Your task to perform on an android device: change timer sound Image 0: 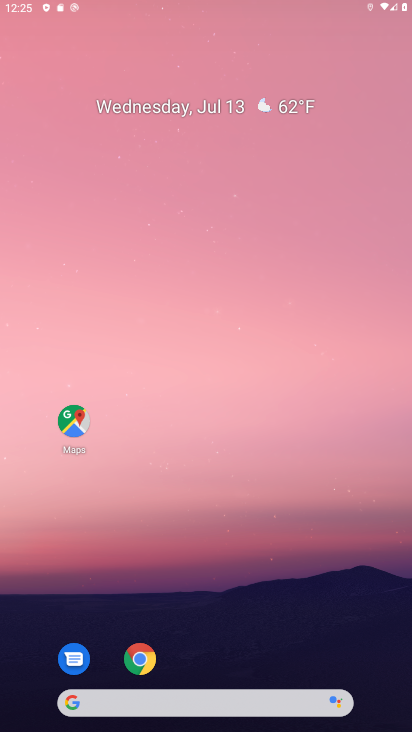
Step 0: drag from (182, 720) to (157, 251)
Your task to perform on an android device: change timer sound Image 1: 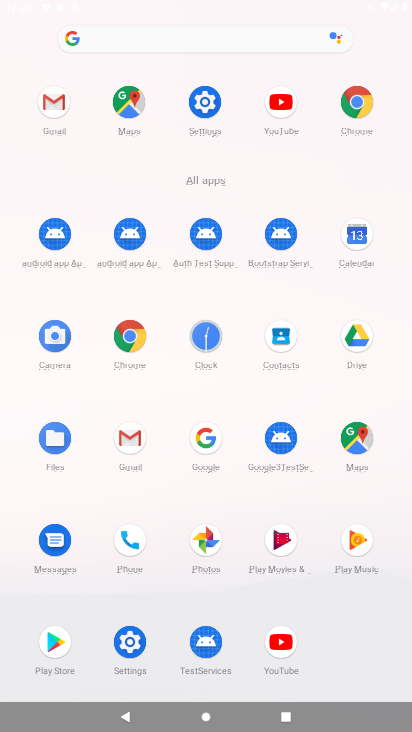
Step 1: drag from (271, 574) to (181, 132)
Your task to perform on an android device: change timer sound Image 2: 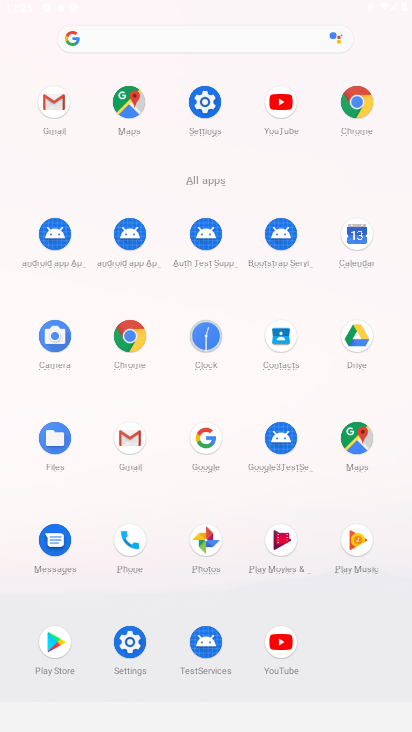
Step 2: click (138, 436)
Your task to perform on an android device: change timer sound Image 3: 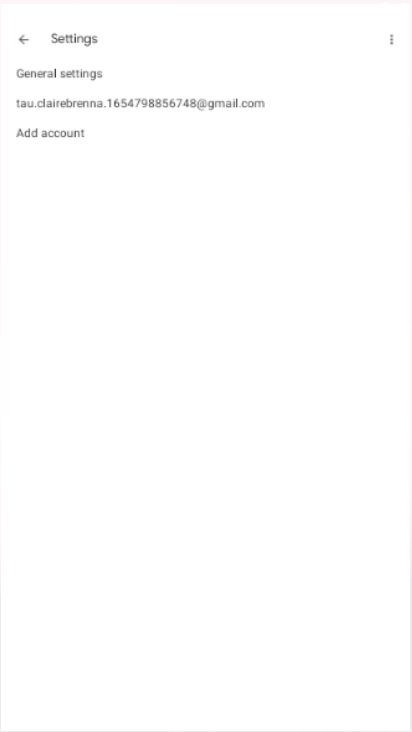
Step 3: click (134, 428)
Your task to perform on an android device: change timer sound Image 4: 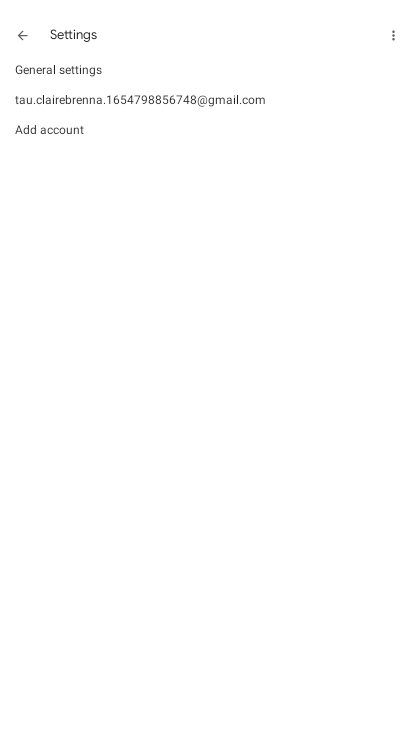
Step 4: click (11, 31)
Your task to perform on an android device: change timer sound Image 5: 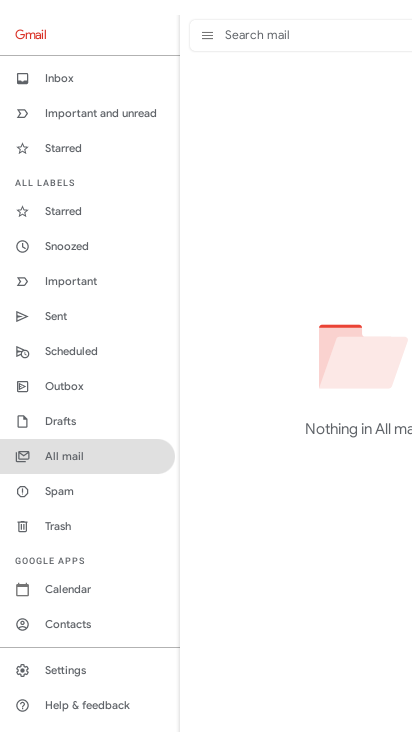
Step 5: press back button
Your task to perform on an android device: change timer sound Image 6: 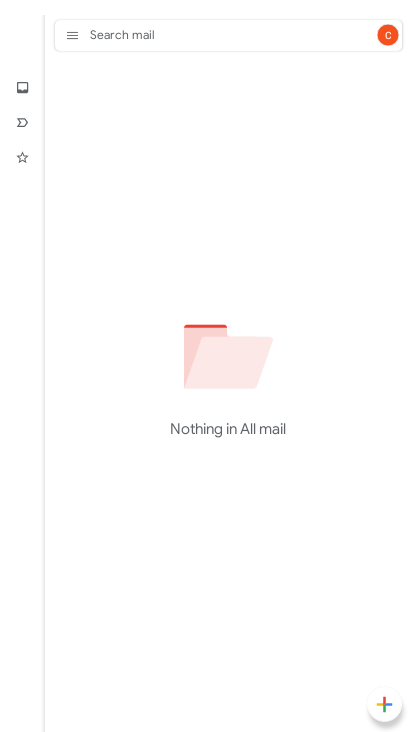
Step 6: press home button
Your task to perform on an android device: change timer sound Image 7: 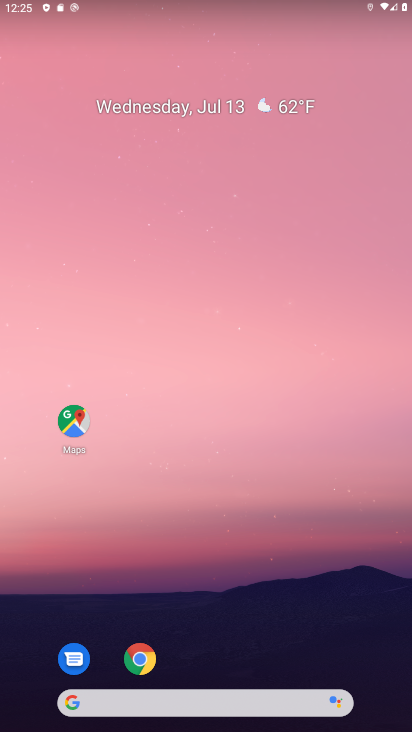
Step 7: drag from (237, 645) to (157, 129)
Your task to perform on an android device: change timer sound Image 8: 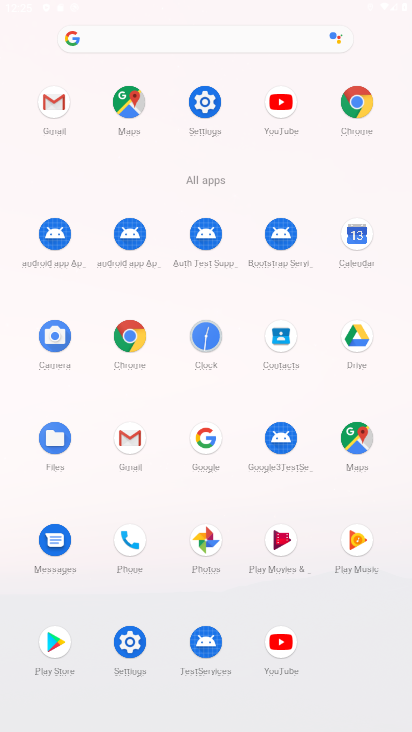
Step 8: click (206, 335)
Your task to perform on an android device: change timer sound Image 9: 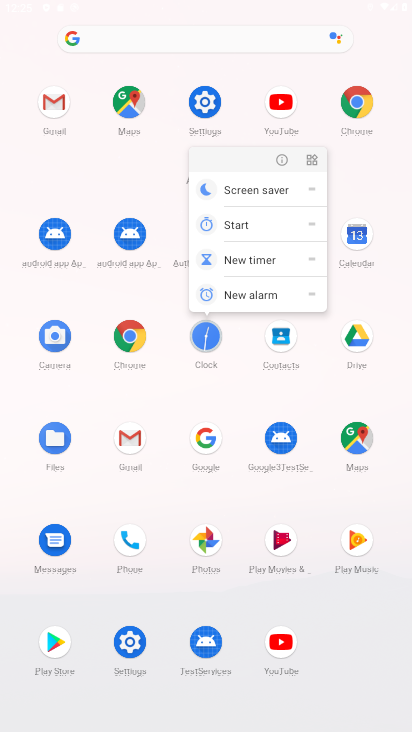
Step 9: click (210, 330)
Your task to perform on an android device: change timer sound Image 10: 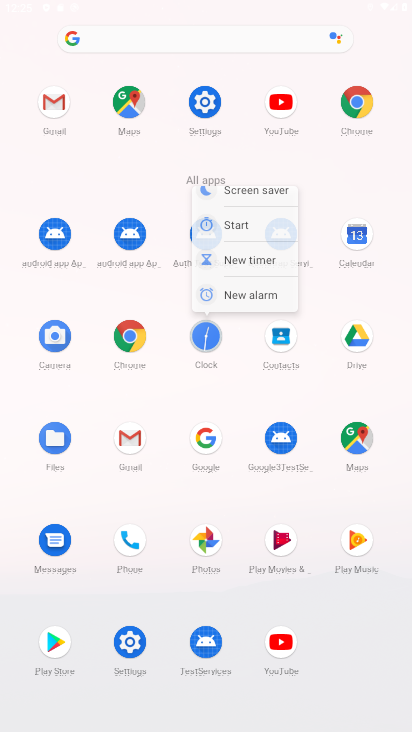
Step 10: click (210, 330)
Your task to perform on an android device: change timer sound Image 11: 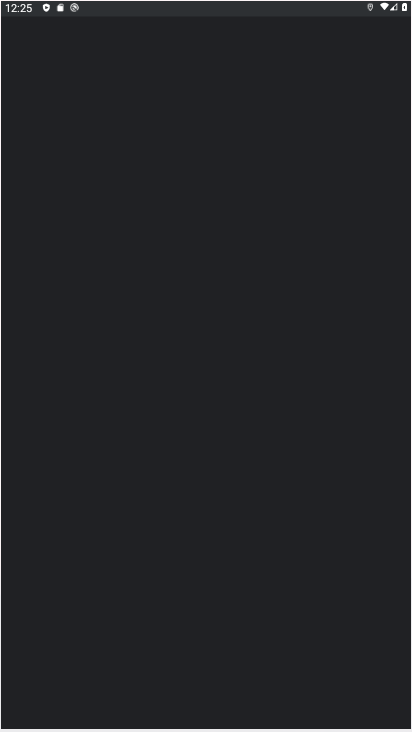
Step 11: click (210, 330)
Your task to perform on an android device: change timer sound Image 12: 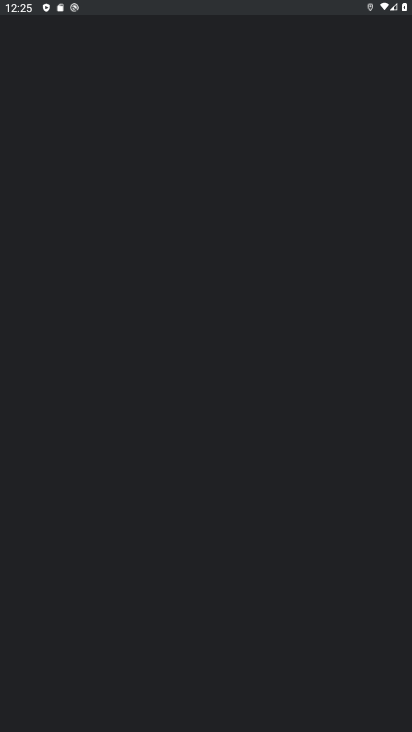
Step 12: click (210, 330)
Your task to perform on an android device: change timer sound Image 13: 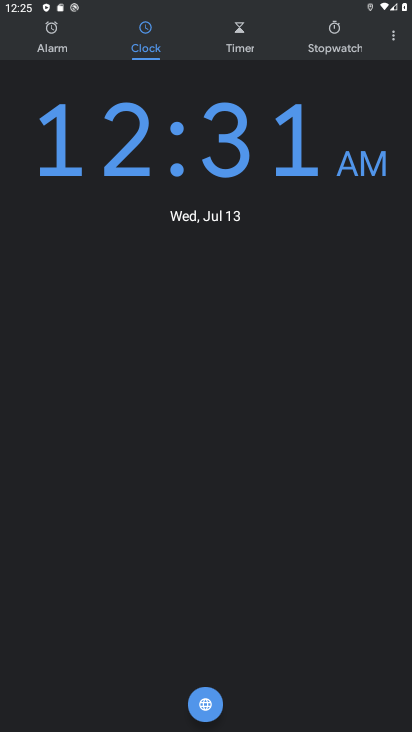
Step 13: click (389, 34)
Your task to perform on an android device: change timer sound Image 14: 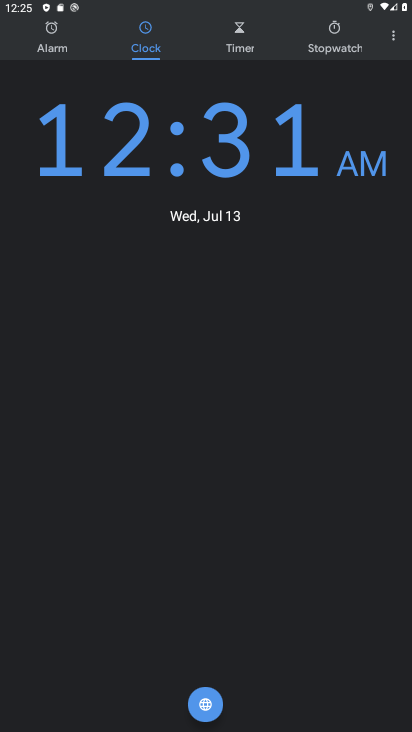
Step 14: click (393, 43)
Your task to perform on an android device: change timer sound Image 15: 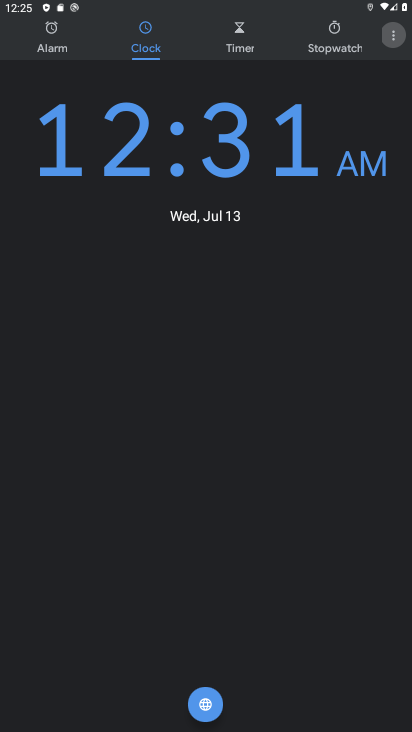
Step 15: click (394, 41)
Your task to perform on an android device: change timer sound Image 16: 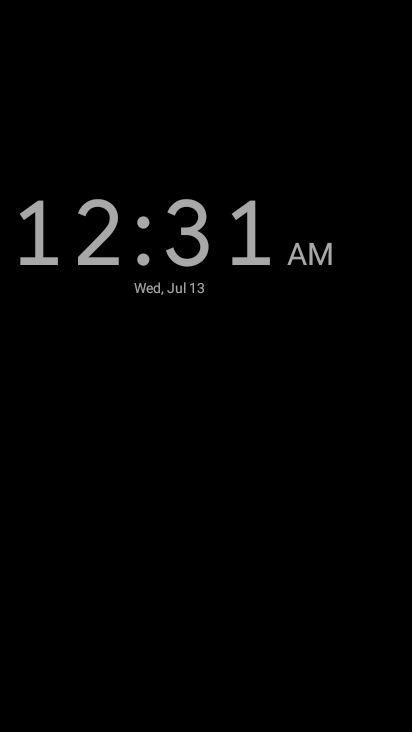
Step 16: press back button
Your task to perform on an android device: change timer sound Image 17: 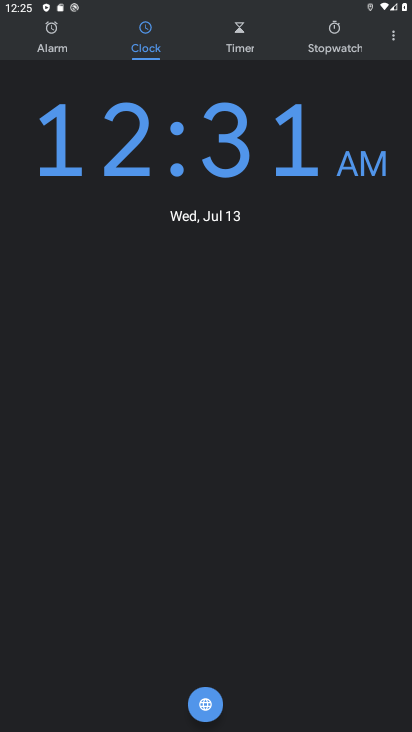
Step 17: click (391, 34)
Your task to perform on an android device: change timer sound Image 18: 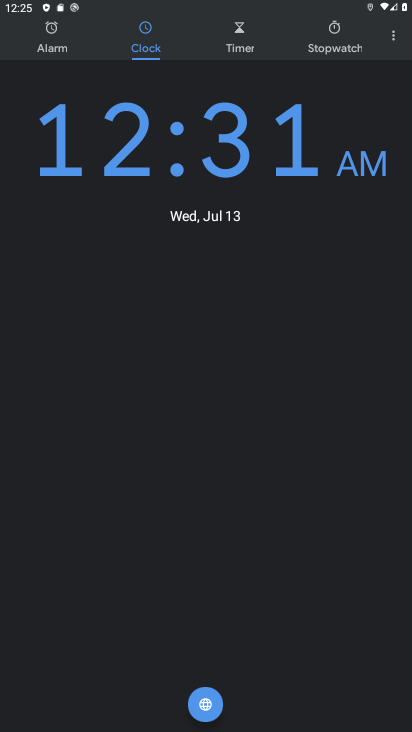
Step 18: click (401, 35)
Your task to perform on an android device: change timer sound Image 19: 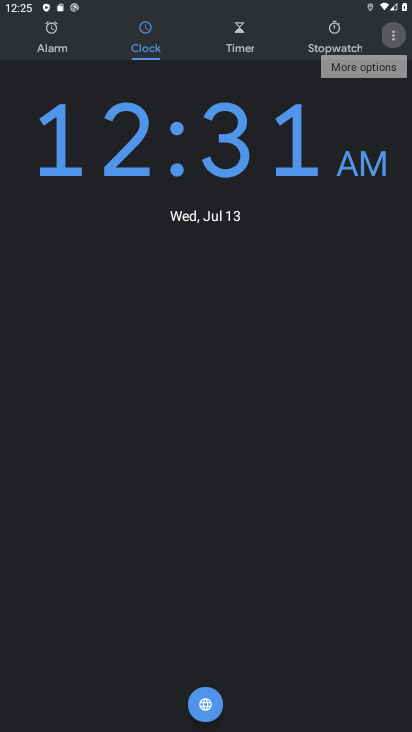
Step 19: click (400, 35)
Your task to perform on an android device: change timer sound Image 20: 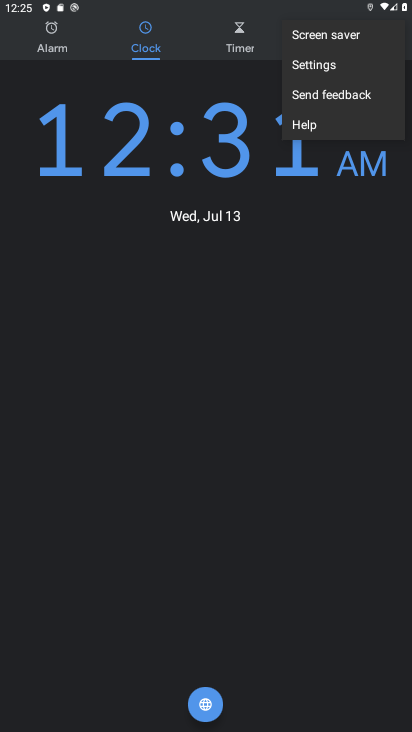
Step 20: click (300, 58)
Your task to perform on an android device: change timer sound Image 21: 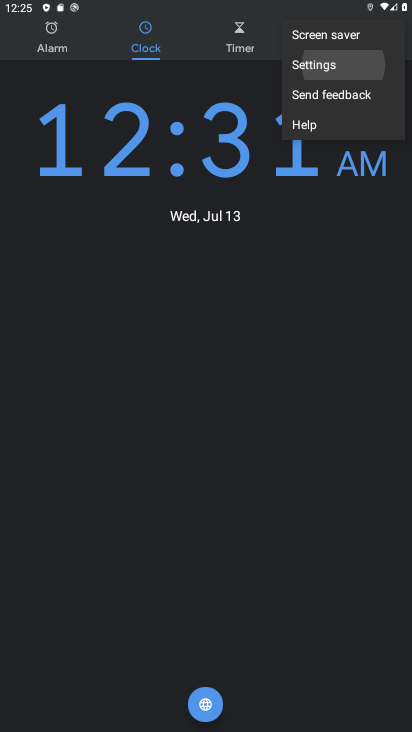
Step 21: click (299, 58)
Your task to perform on an android device: change timer sound Image 22: 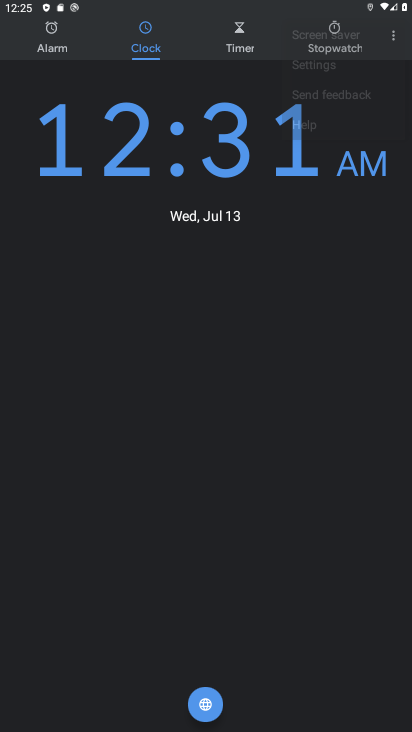
Step 22: click (299, 58)
Your task to perform on an android device: change timer sound Image 23: 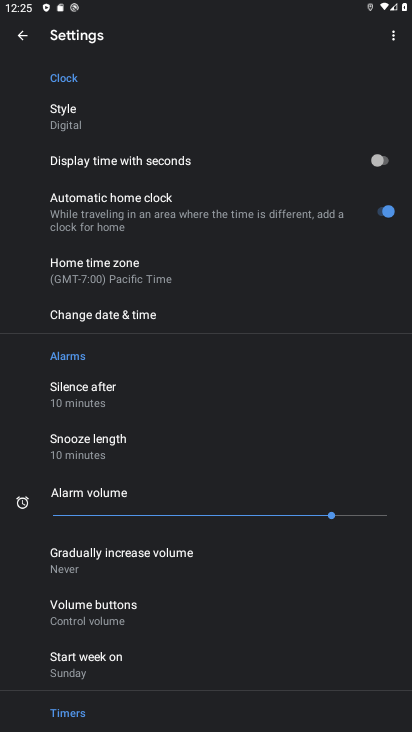
Step 23: drag from (113, 570) to (136, 298)
Your task to perform on an android device: change timer sound Image 24: 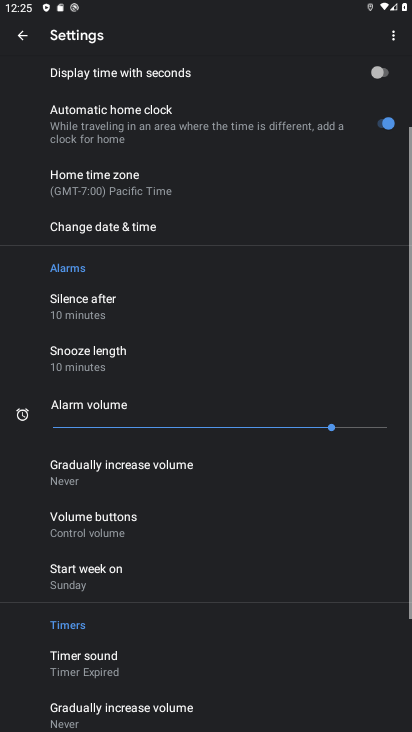
Step 24: drag from (187, 495) to (189, 371)
Your task to perform on an android device: change timer sound Image 25: 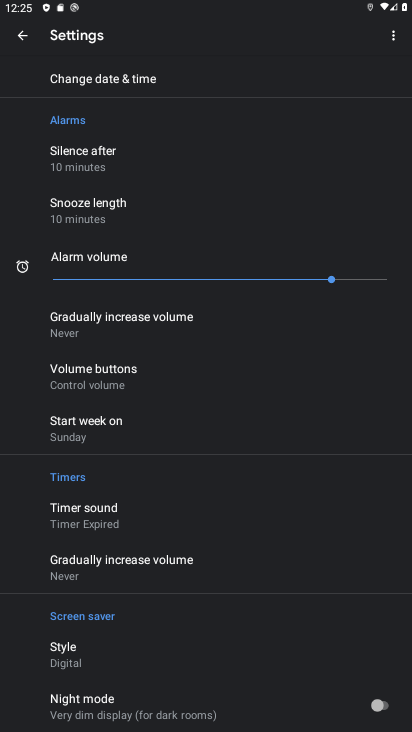
Step 25: drag from (139, 563) to (103, 305)
Your task to perform on an android device: change timer sound Image 26: 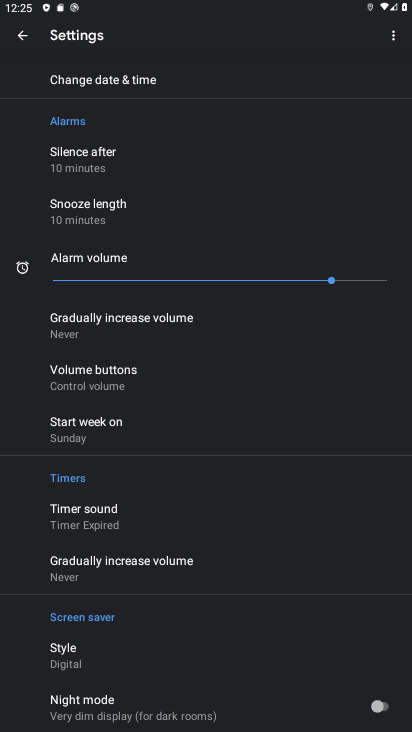
Step 26: drag from (111, 483) to (111, 320)
Your task to perform on an android device: change timer sound Image 27: 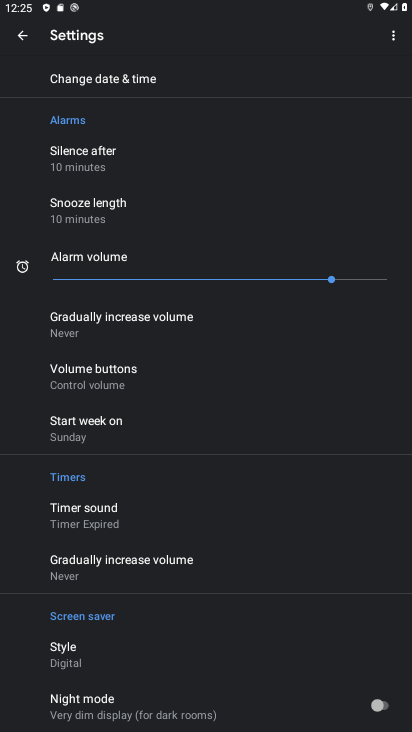
Step 27: drag from (108, 603) to (88, 233)
Your task to perform on an android device: change timer sound Image 28: 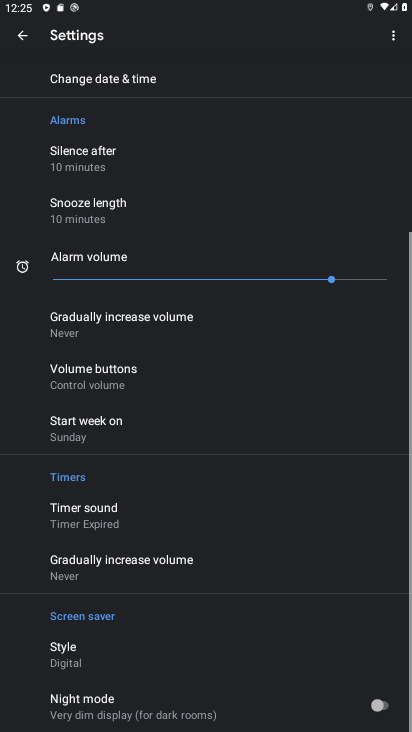
Step 28: drag from (107, 547) to (110, 197)
Your task to perform on an android device: change timer sound Image 29: 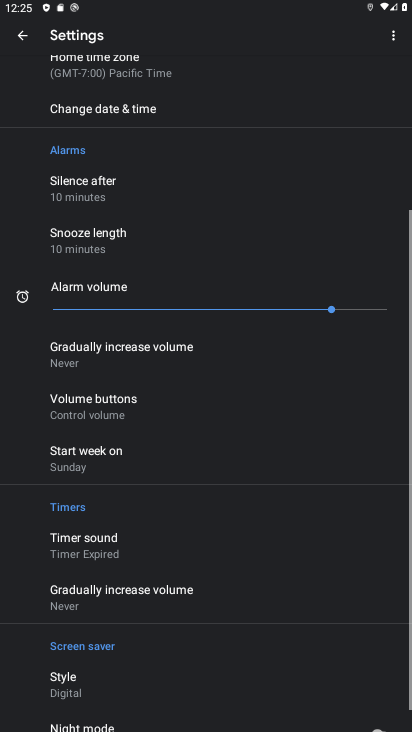
Step 29: drag from (95, 227) to (21, 255)
Your task to perform on an android device: change timer sound Image 30: 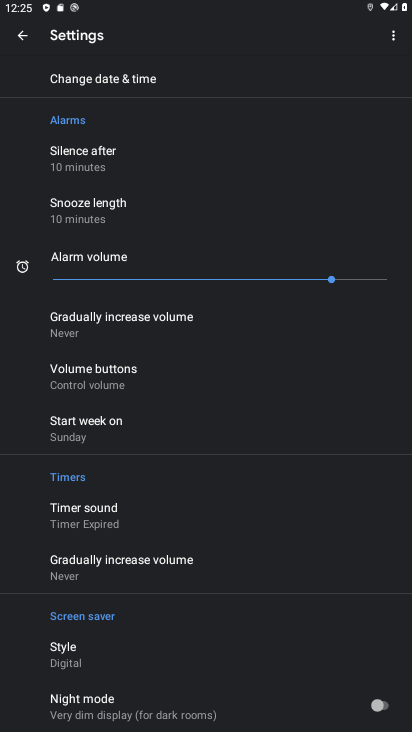
Step 30: click (60, 240)
Your task to perform on an android device: change timer sound Image 31: 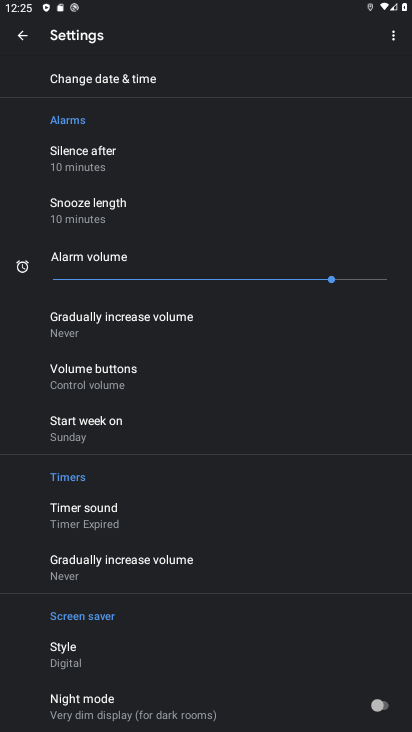
Step 31: click (89, 516)
Your task to perform on an android device: change timer sound Image 32: 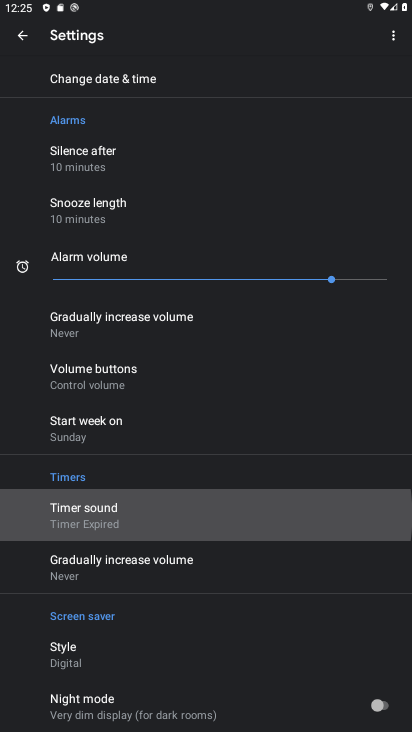
Step 32: click (93, 510)
Your task to perform on an android device: change timer sound Image 33: 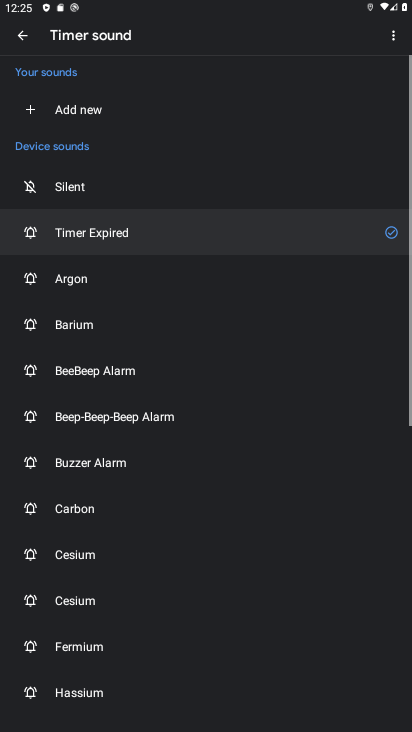
Step 33: click (95, 507)
Your task to perform on an android device: change timer sound Image 34: 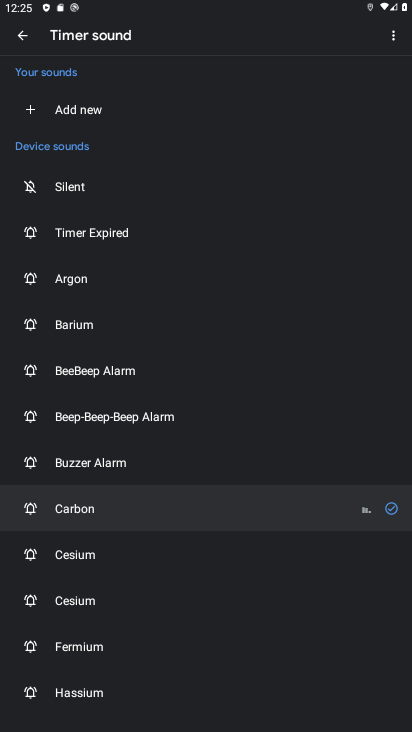
Step 34: click (90, 507)
Your task to perform on an android device: change timer sound Image 35: 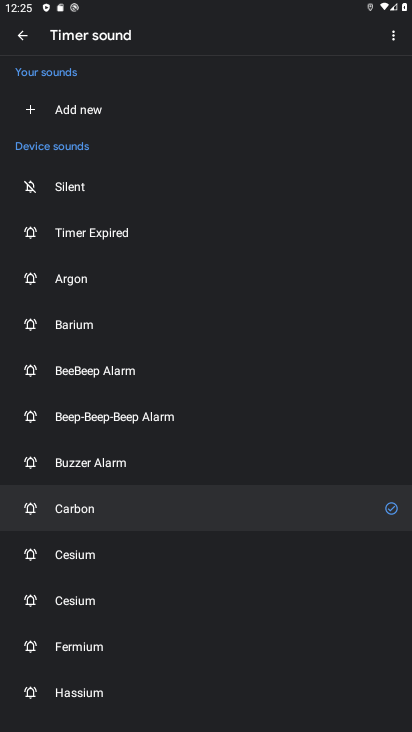
Step 35: click (94, 523)
Your task to perform on an android device: change timer sound Image 36: 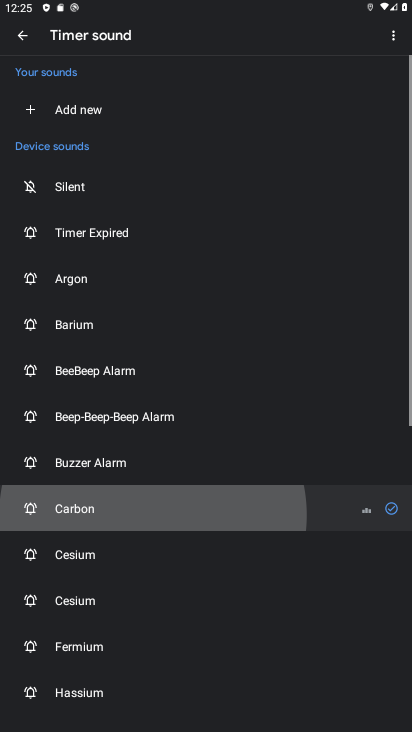
Step 36: click (102, 516)
Your task to perform on an android device: change timer sound Image 37: 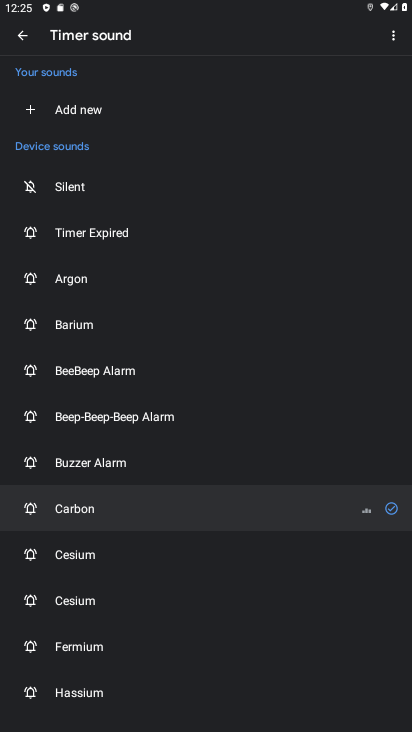
Step 37: click (87, 503)
Your task to perform on an android device: change timer sound Image 38: 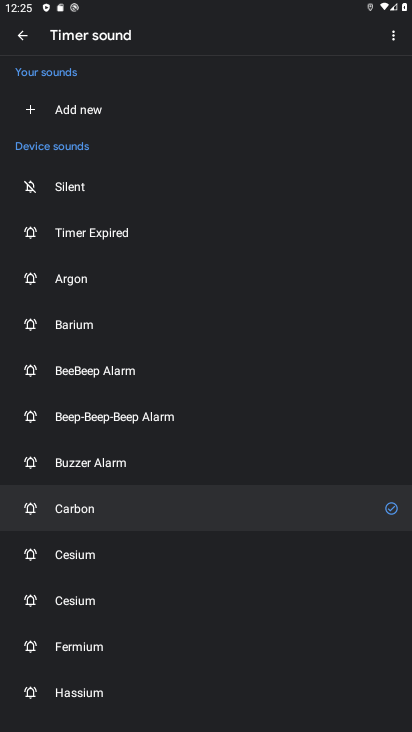
Step 38: click (93, 509)
Your task to perform on an android device: change timer sound Image 39: 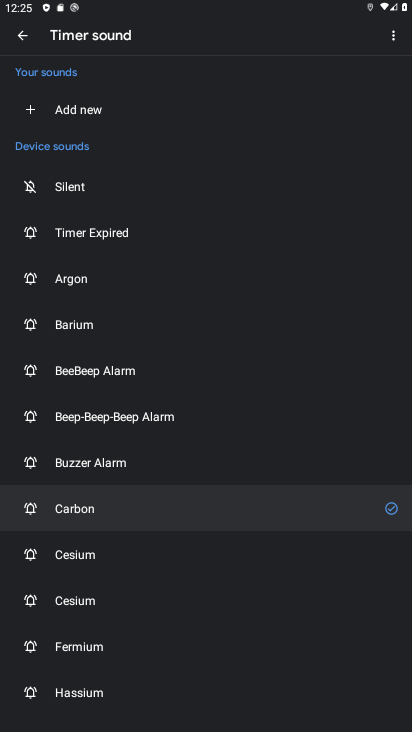
Step 39: click (77, 499)
Your task to perform on an android device: change timer sound Image 40: 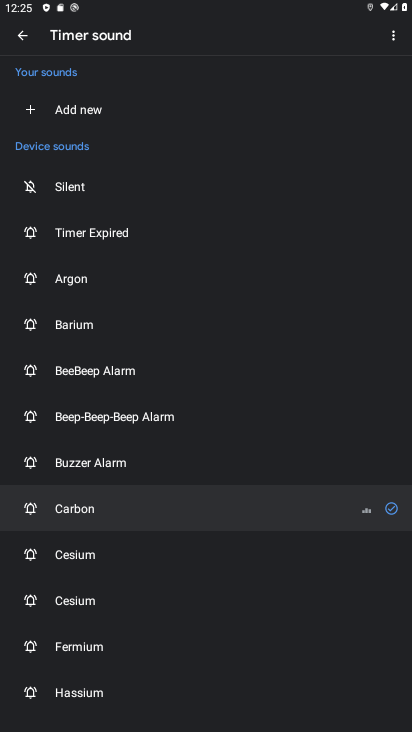
Step 40: click (92, 512)
Your task to perform on an android device: change timer sound Image 41: 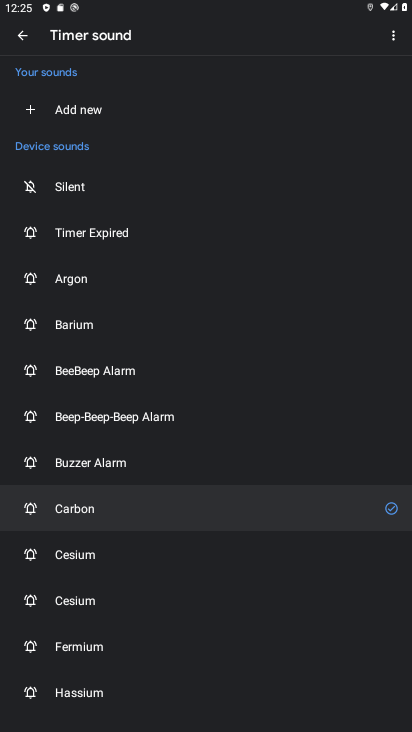
Step 41: task complete